Your task to perform on an android device: open a bookmark in the chrome app Image 0: 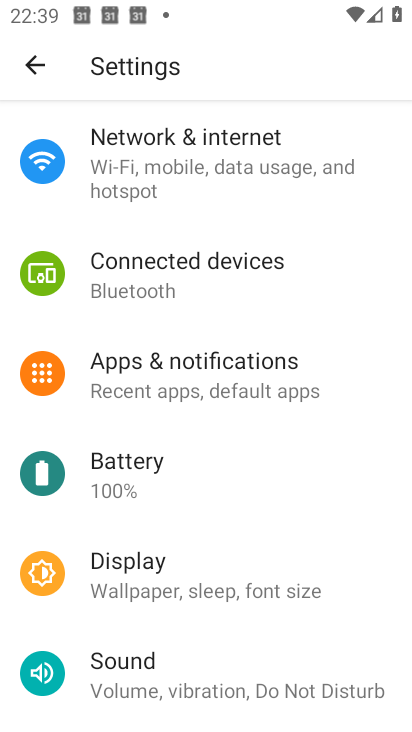
Step 0: press home button
Your task to perform on an android device: open a bookmark in the chrome app Image 1: 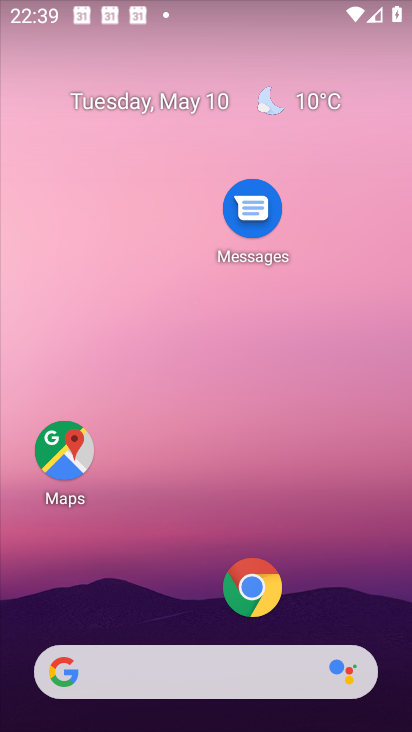
Step 1: click (241, 598)
Your task to perform on an android device: open a bookmark in the chrome app Image 2: 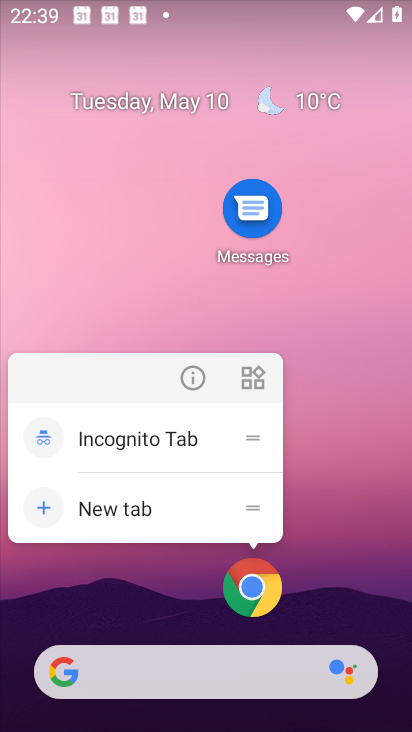
Step 2: click (243, 604)
Your task to perform on an android device: open a bookmark in the chrome app Image 3: 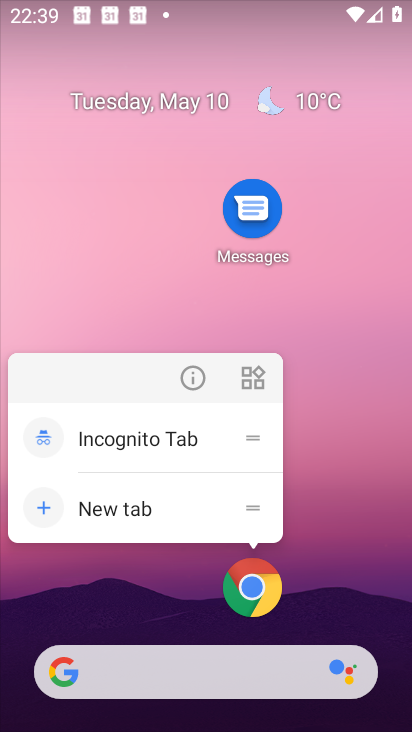
Step 3: click (241, 598)
Your task to perform on an android device: open a bookmark in the chrome app Image 4: 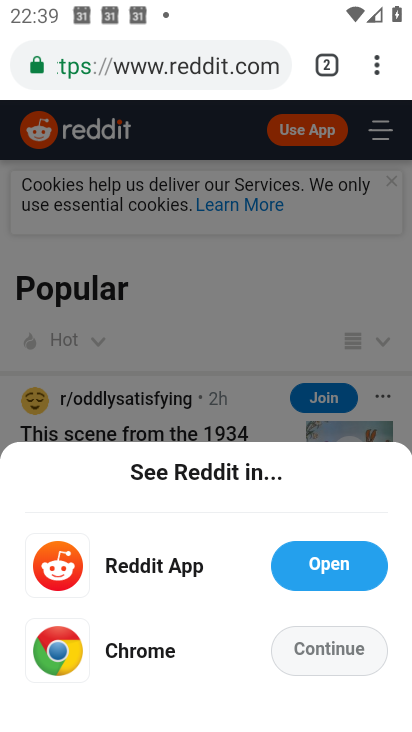
Step 4: click (316, 658)
Your task to perform on an android device: open a bookmark in the chrome app Image 5: 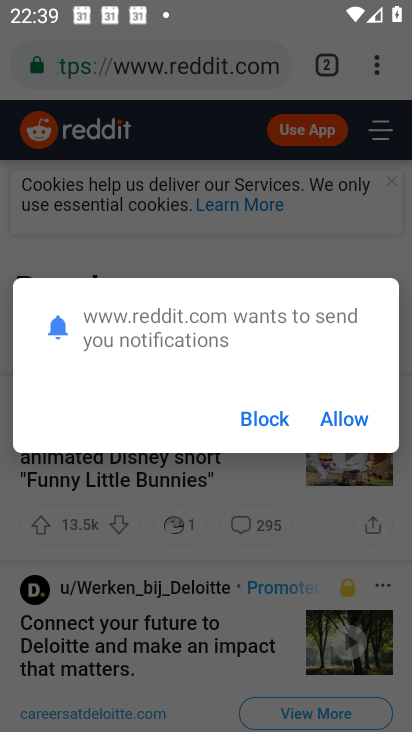
Step 5: click (373, 59)
Your task to perform on an android device: open a bookmark in the chrome app Image 6: 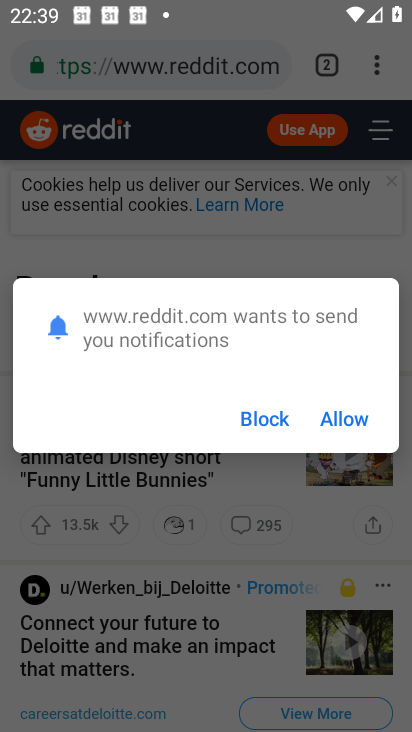
Step 6: click (260, 420)
Your task to perform on an android device: open a bookmark in the chrome app Image 7: 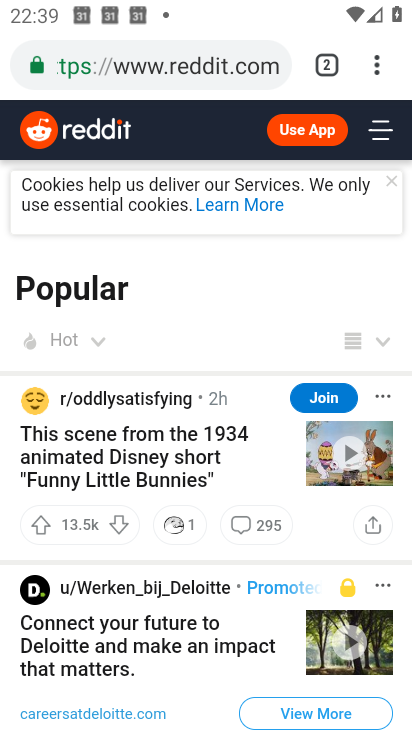
Step 7: click (382, 59)
Your task to perform on an android device: open a bookmark in the chrome app Image 8: 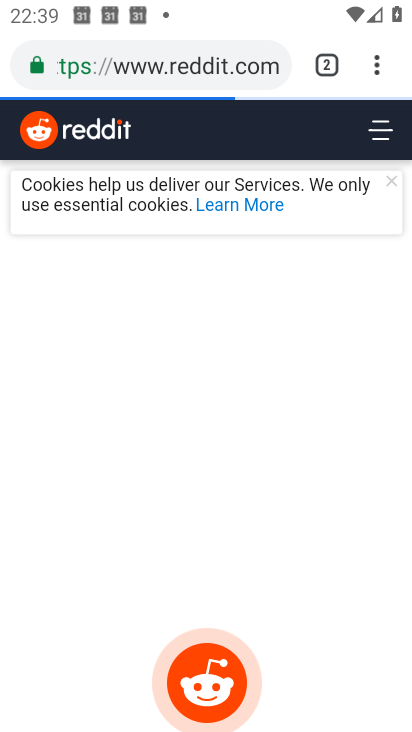
Step 8: click (370, 61)
Your task to perform on an android device: open a bookmark in the chrome app Image 9: 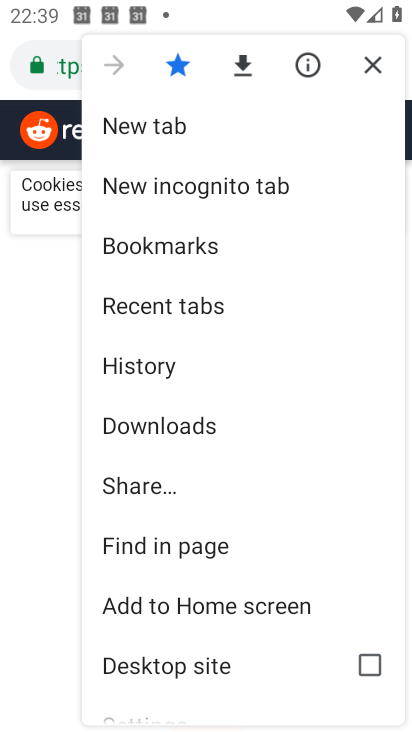
Step 9: click (193, 251)
Your task to perform on an android device: open a bookmark in the chrome app Image 10: 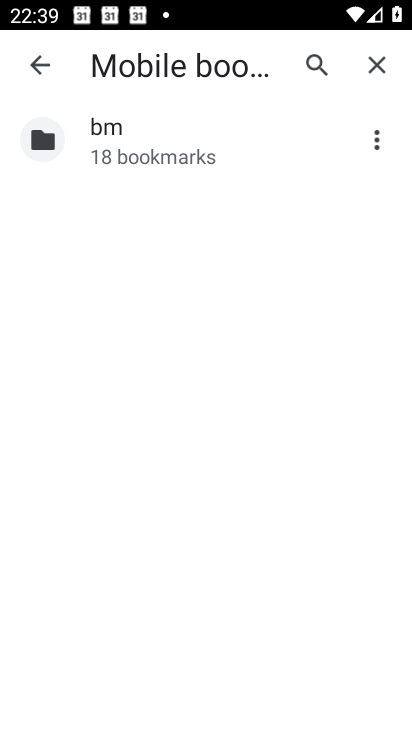
Step 10: click (128, 141)
Your task to perform on an android device: open a bookmark in the chrome app Image 11: 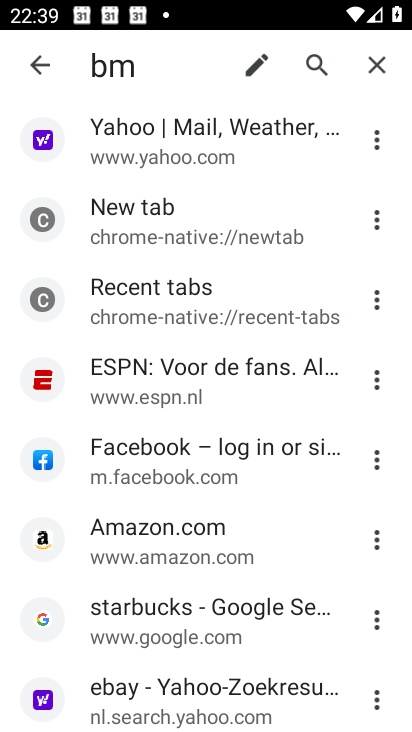
Step 11: click (163, 479)
Your task to perform on an android device: open a bookmark in the chrome app Image 12: 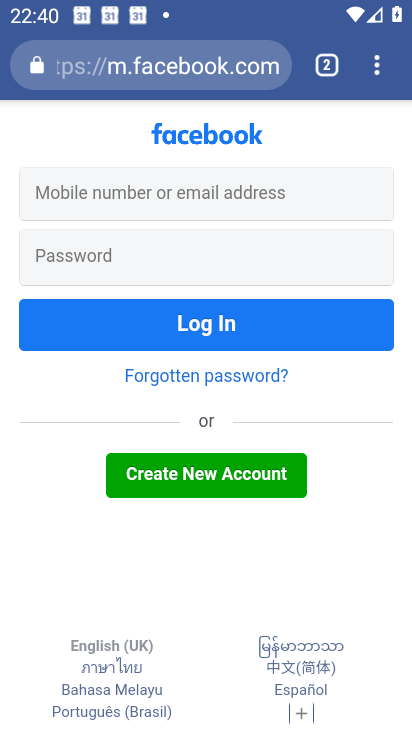
Step 12: task complete